Your task to perform on an android device: turn off priority inbox in the gmail app Image 0: 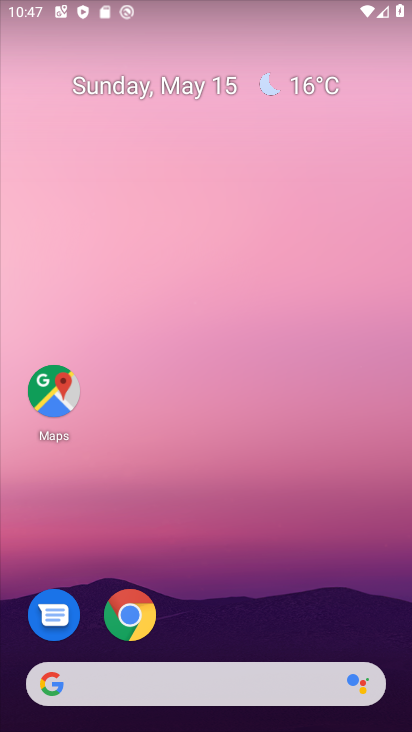
Step 0: drag from (284, 725) to (306, 10)
Your task to perform on an android device: turn off priority inbox in the gmail app Image 1: 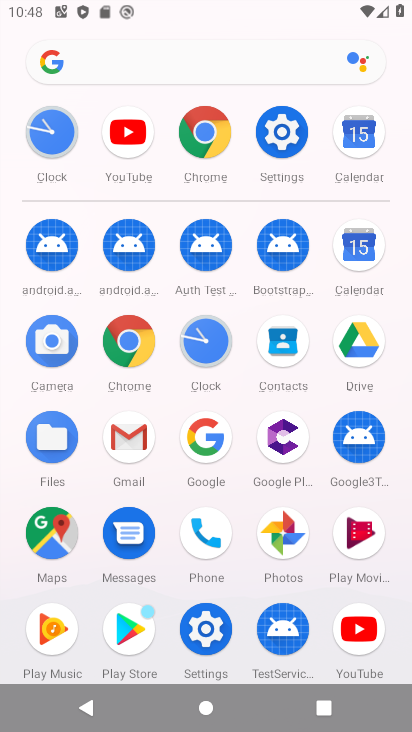
Step 1: click (125, 449)
Your task to perform on an android device: turn off priority inbox in the gmail app Image 2: 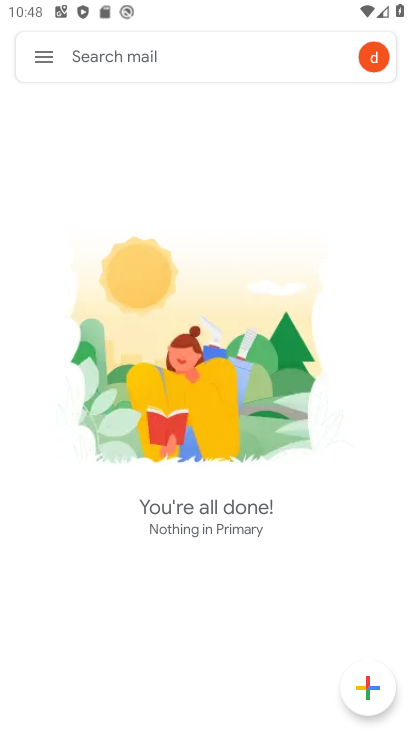
Step 2: click (34, 61)
Your task to perform on an android device: turn off priority inbox in the gmail app Image 3: 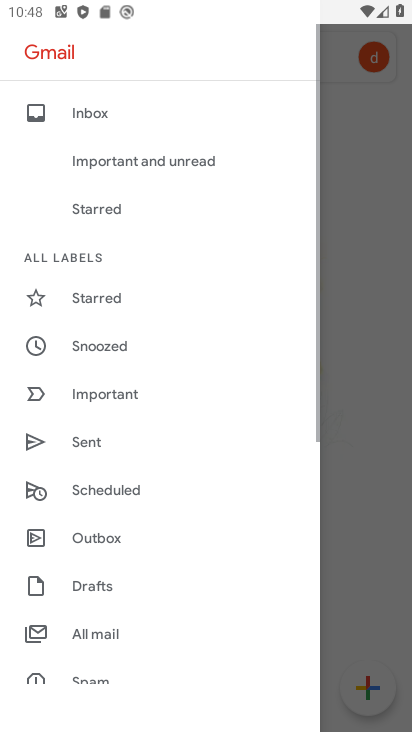
Step 3: drag from (86, 661) to (39, 59)
Your task to perform on an android device: turn off priority inbox in the gmail app Image 4: 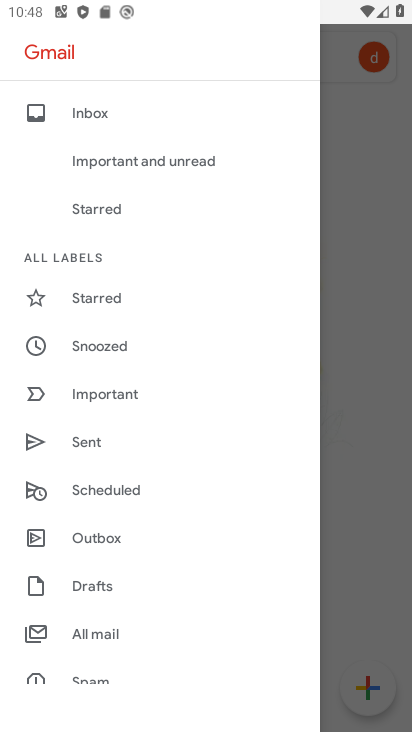
Step 4: drag from (144, 671) to (210, 174)
Your task to perform on an android device: turn off priority inbox in the gmail app Image 5: 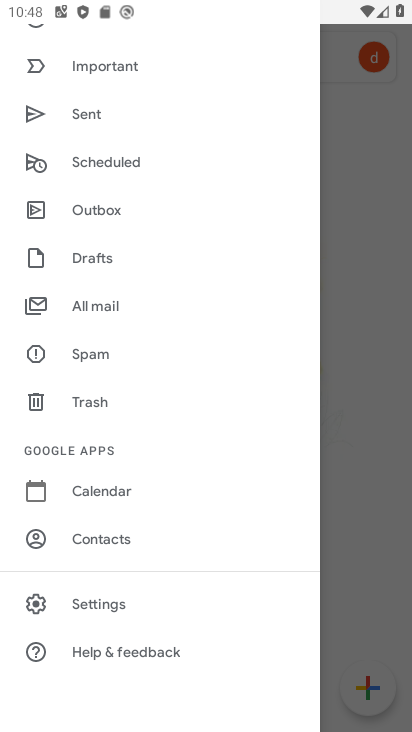
Step 5: click (166, 594)
Your task to perform on an android device: turn off priority inbox in the gmail app Image 6: 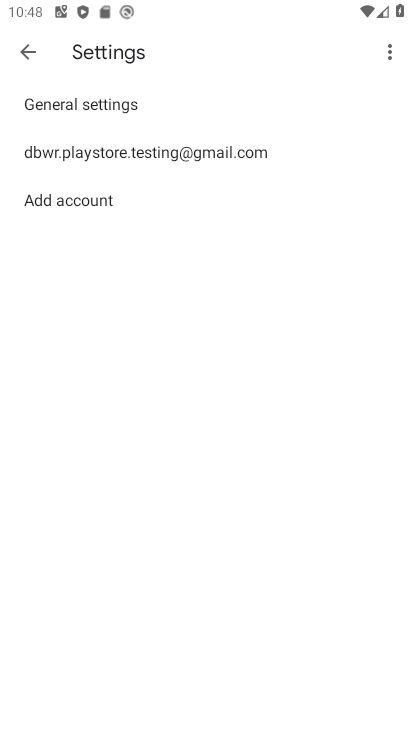
Step 6: click (291, 155)
Your task to perform on an android device: turn off priority inbox in the gmail app Image 7: 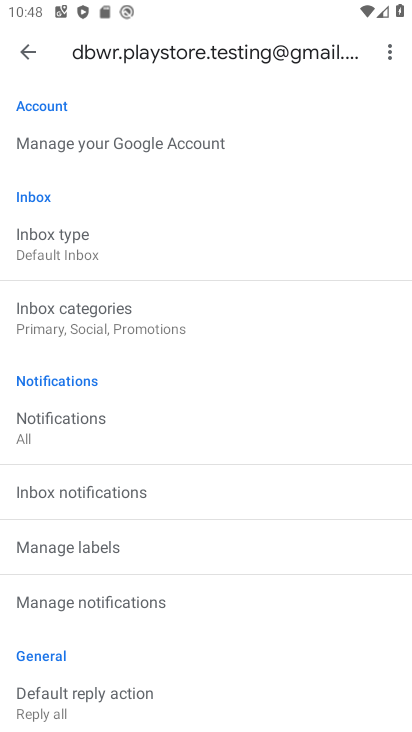
Step 7: click (47, 241)
Your task to perform on an android device: turn off priority inbox in the gmail app Image 8: 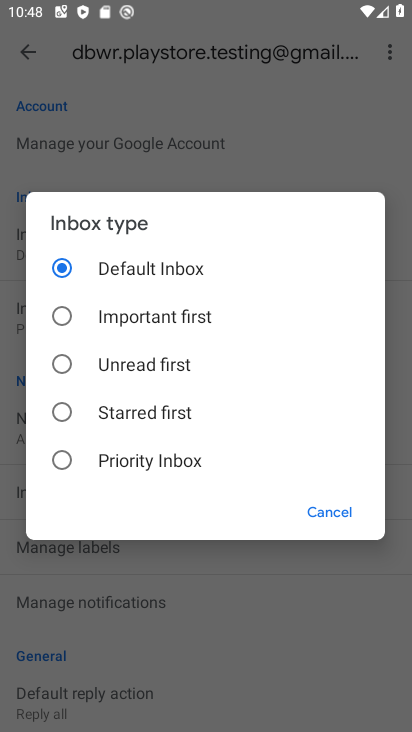
Step 8: task complete